Your task to perform on an android device: Open Yahoo.com Image 0: 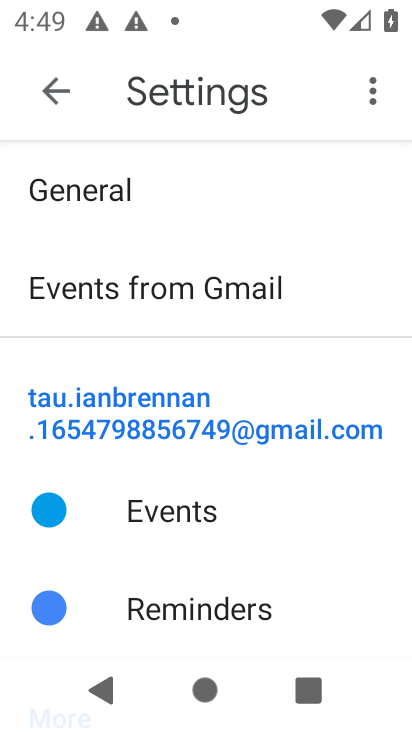
Step 0: press home button
Your task to perform on an android device: Open Yahoo.com Image 1: 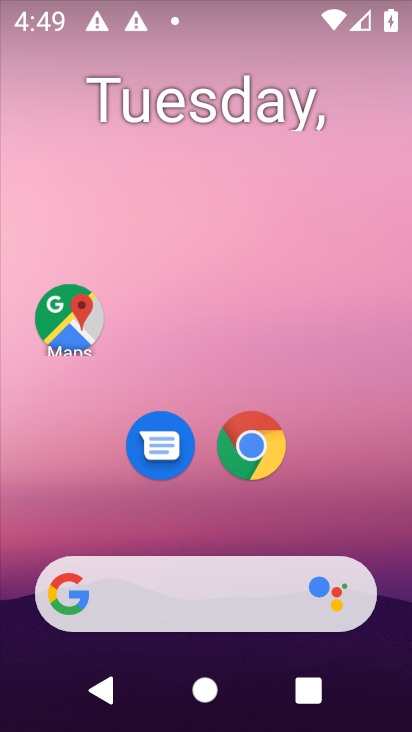
Step 1: click (254, 444)
Your task to perform on an android device: Open Yahoo.com Image 2: 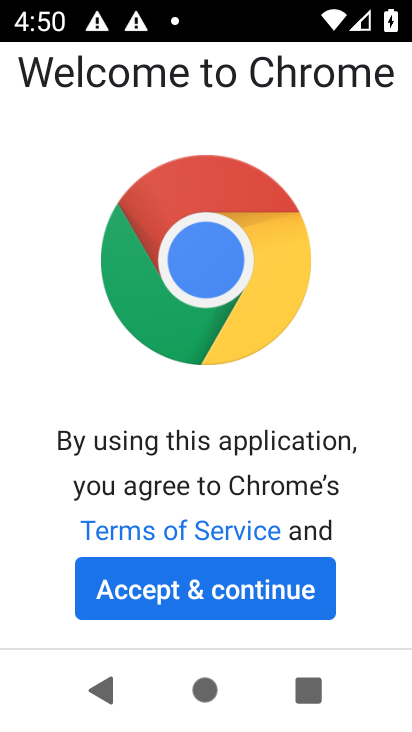
Step 2: click (187, 593)
Your task to perform on an android device: Open Yahoo.com Image 3: 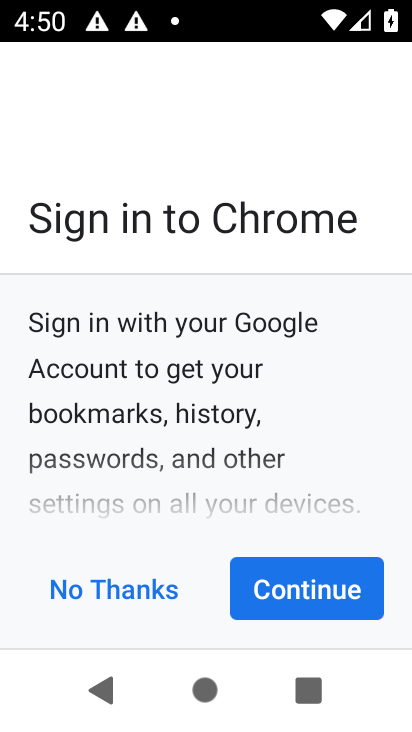
Step 3: click (280, 602)
Your task to perform on an android device: Open Yahoo.com Image 4: 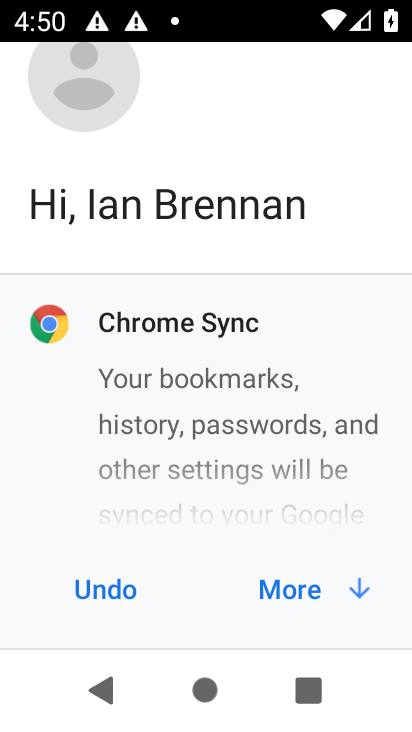
Step 4: click (281, 579)
Your task to perform on an android device: Open Yahoo.com Image 5: 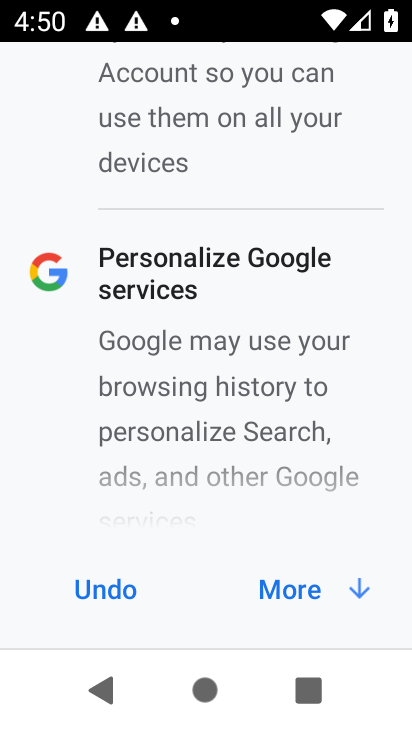
Step 5: click (281, 579)
Your task to perform on an android device: Open Yahoo.com Image 6: 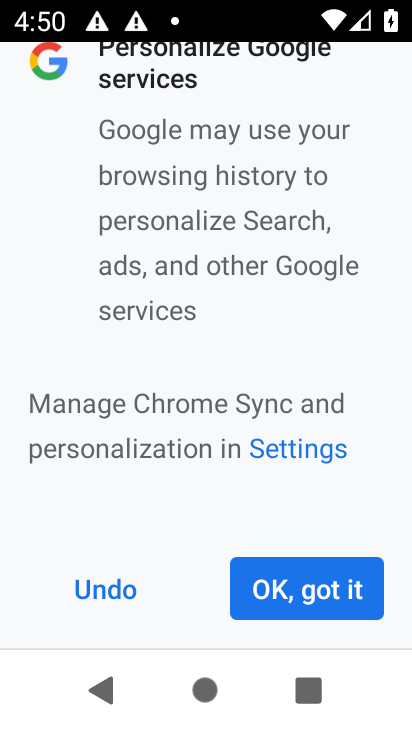
Step 6: click (281, 579)
Your task to perform on an android device: Open Yahoo.com Image 7: 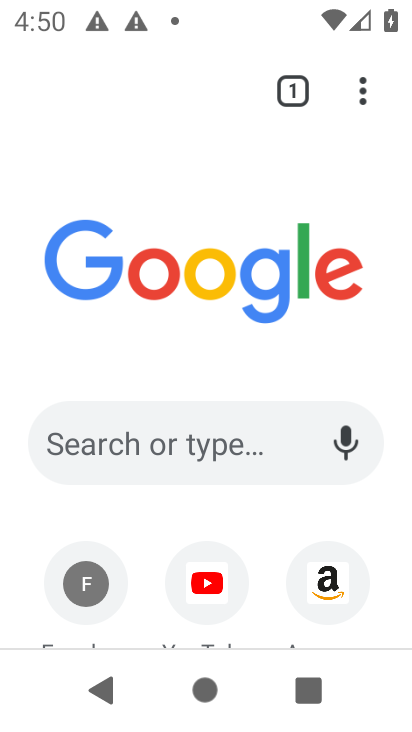
Step 7: click (199, 577)
Your task to perform on an android device: Open Yahoo.com Image 8: 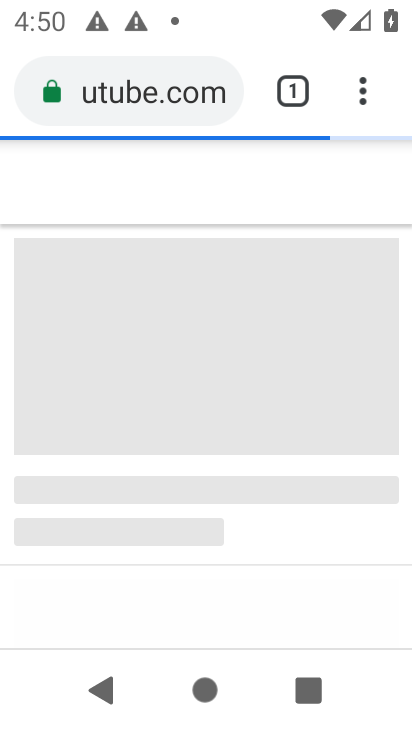
Step 8: click (138, 105)
Your task to perform on an android device: Open Yahoo.com Image 9: 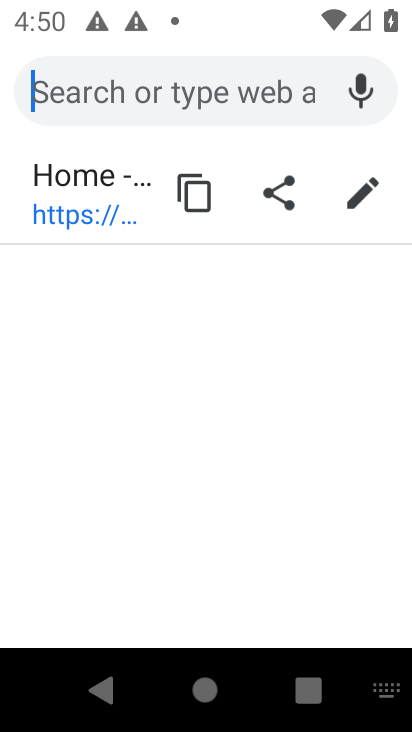
Step 9: type "www.yahoo.com"
Your task to perform on an android device: Open Yahoo.com Image 10: 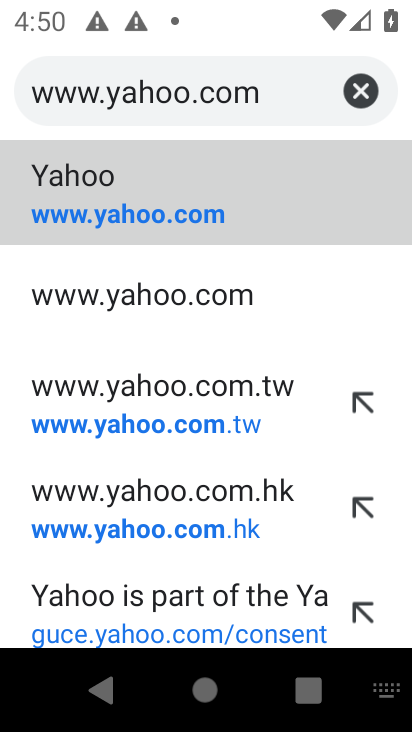
Step 10: click (99, 223)
Your task to perform on an android device: Open Yahoo.com Image 11: 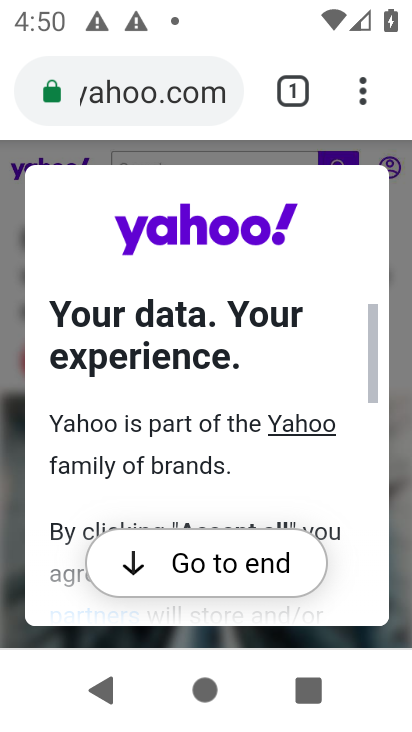
Step 11: task complete